Your task to perform on an android device: Open the calendar app, open the side menu, and click the "Day" option Image 0: 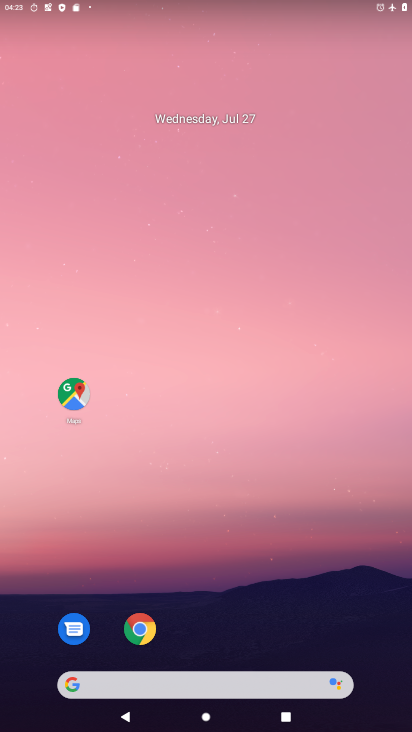
Step 0: drag from (286, 578) to (219, 55)
Your task to perform on an android device: Open the calendar app, open the side menu, and click the "Day" option Image 1: 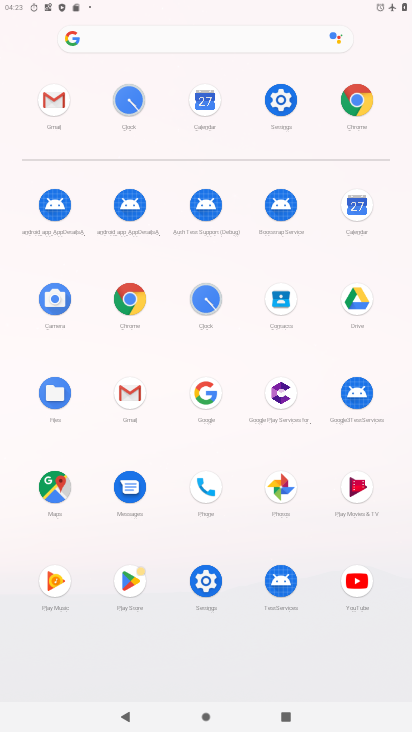
Step 1: click (353, 197)
Your task to perform on an android device: Open the calendar app, open the side menu, and click the "Day" option Image 2: 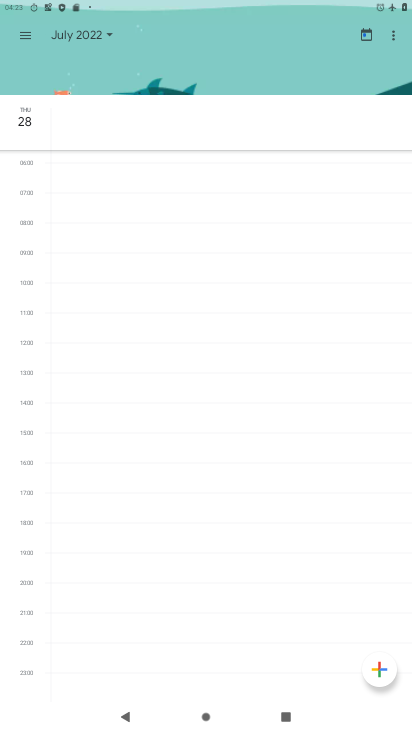
Step 2: click (19, 45)
Your task to perform on an android device: Open the calendar app, open the side menu, and click the "Day" option Image 3: 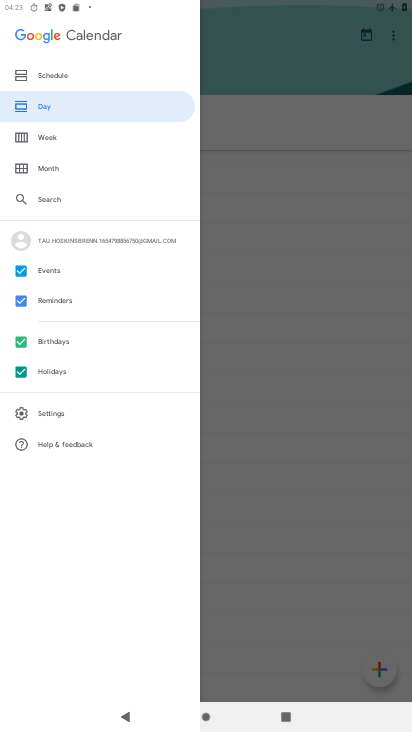
Step 3: click (68, 110)
Your task to perform on an android device: Open the calendar app, open the side menu, and click the "Day" option Image 4: 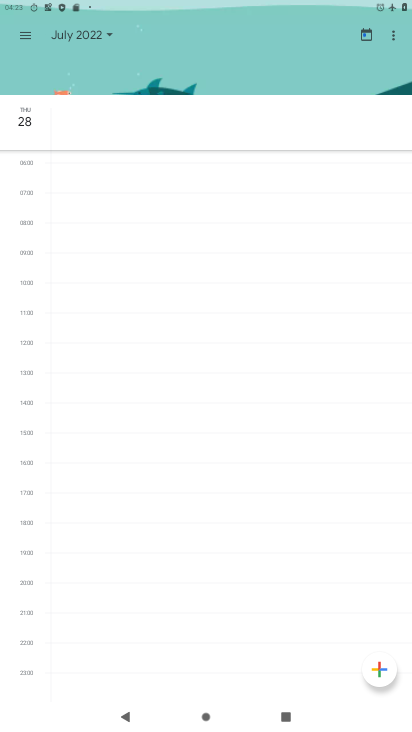
Step 4: task complete